Your task to perform on an android device: Show me popular videos on Youtube Image 0: 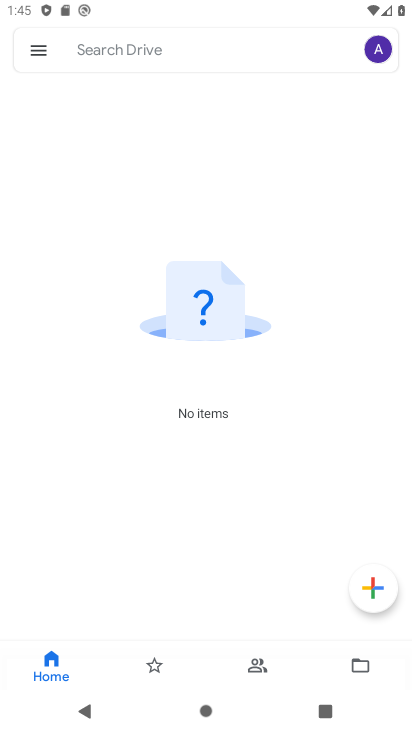
Step 0: press home button
Your task to perform on an android device: Show me popular videos on Youtube Image 1: 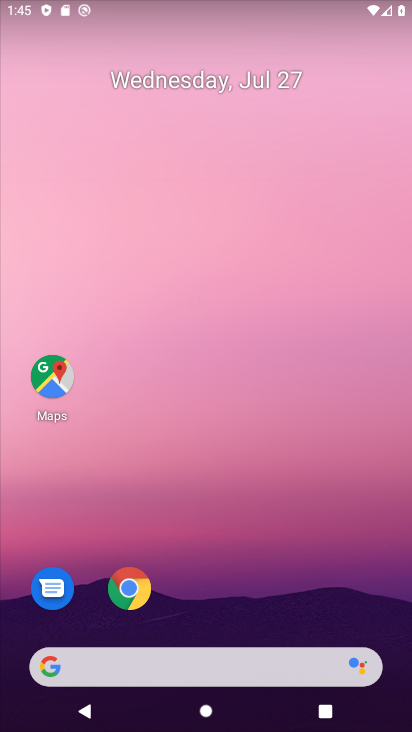
Step 1: drag from (236, 582) to (225, 29)
Your task to perform on an android device: Show me popular videos on Youtube Image 2: 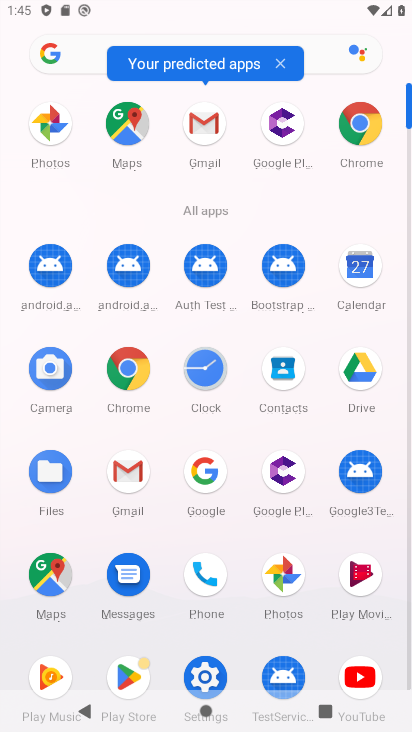
Step 2: click (353, 657)
Your task to perform on an android device: Show me popular videos on Youtube Image 3: 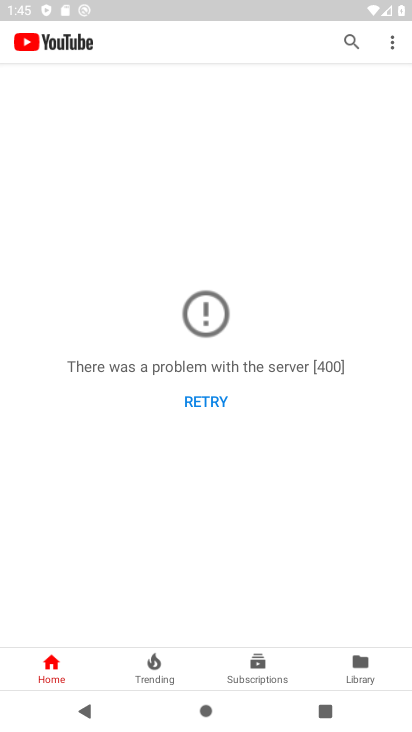
Step 3: click (356, 39)
Your task to perform on an android device: Show me popular videos on Youtube Image 4: 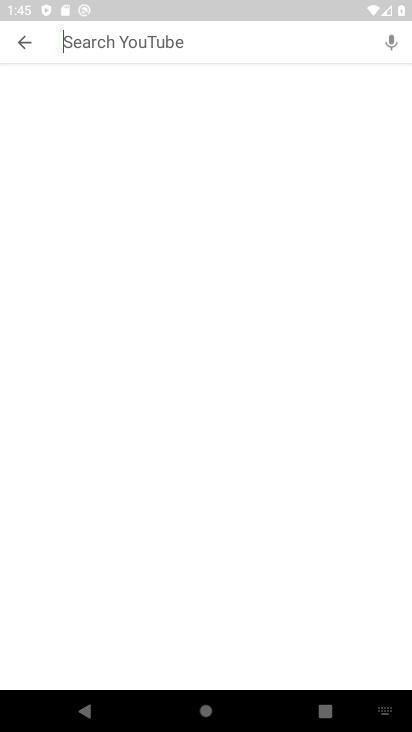
Step 4: click (228, 32)
Your task to perform on an android device: Show me popular videos on Youtube Image 5: 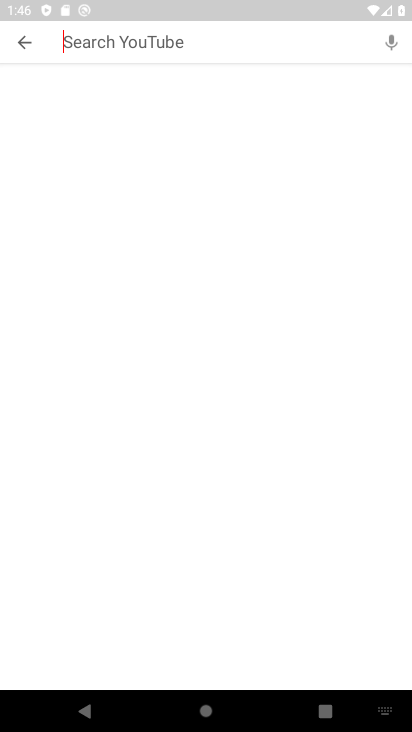
Step 5: type "popular videos"
Your task to perform on an android device: Show me popular videos on Youtube Image 6: 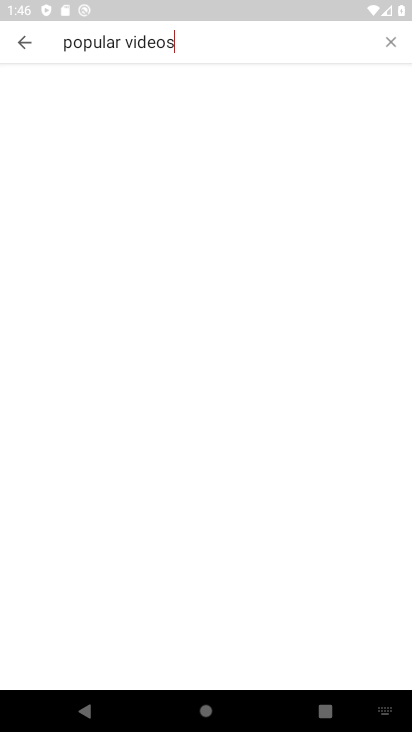
Step 6: type ""
Your task to perform on an android device: Show me popular videos on Youtube Image 7: 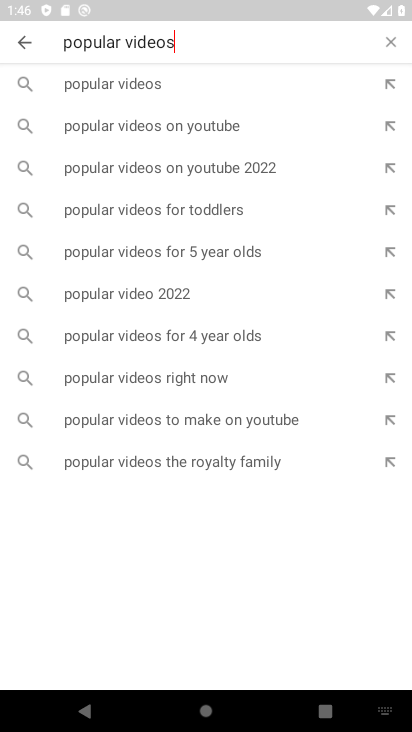
Step 7: click (184, 94)
Your task to perform on an android device: Show me popular videos on Youtube Image 8: 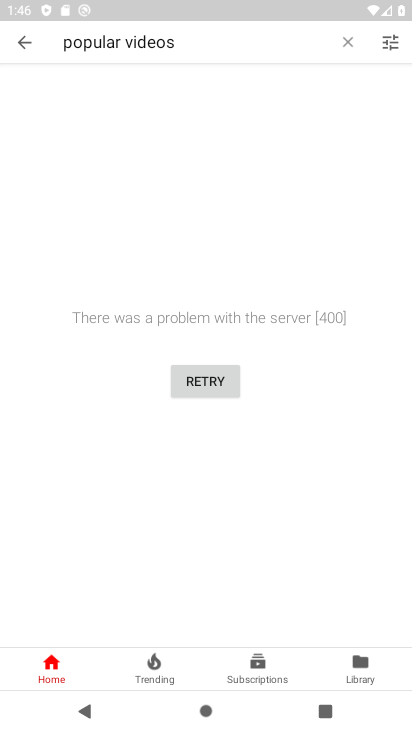
Step 8: task complete